Your task to perform on an android device: check android version Image 0: 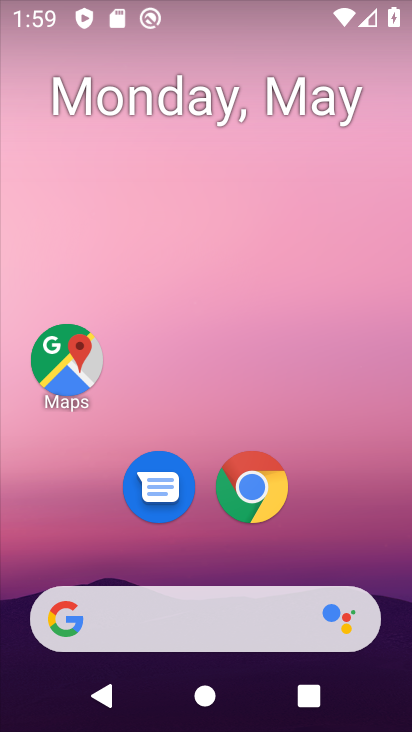
Step 0: drag from (360, 551) to (289, 84)
Your task to perform on an android device: check android version Image 1: 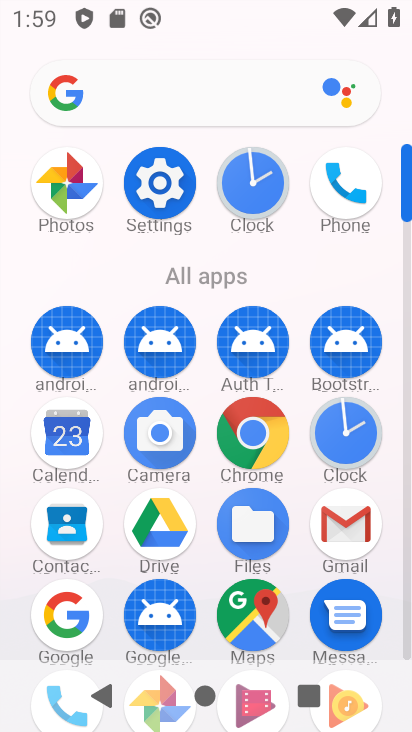
Step 1: click (170, 186)
Your task to perform on an android device: check android version Image 2: 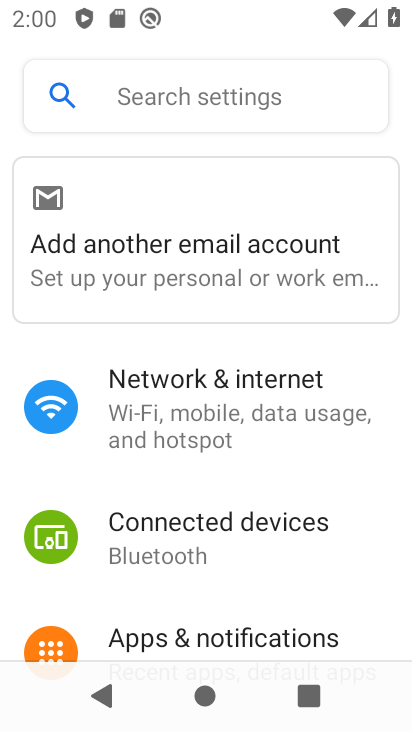
Step 2: task complete